Your task to perform on an android device: Empty the shopping cart on bestbuy. Image 0: 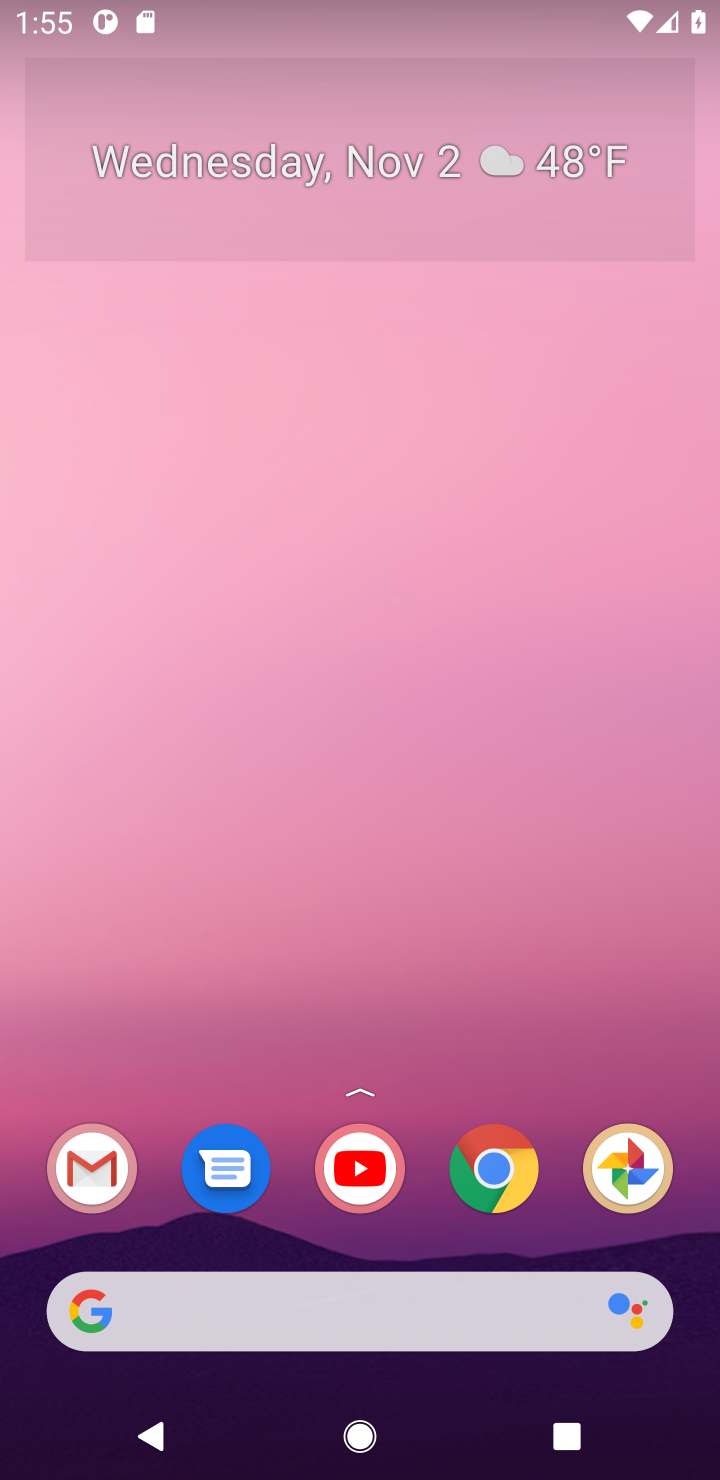
Step 0: click (354, 1319)
Your task to perform on an android device: Empty the shopping cart on bestbuy. Image 1: 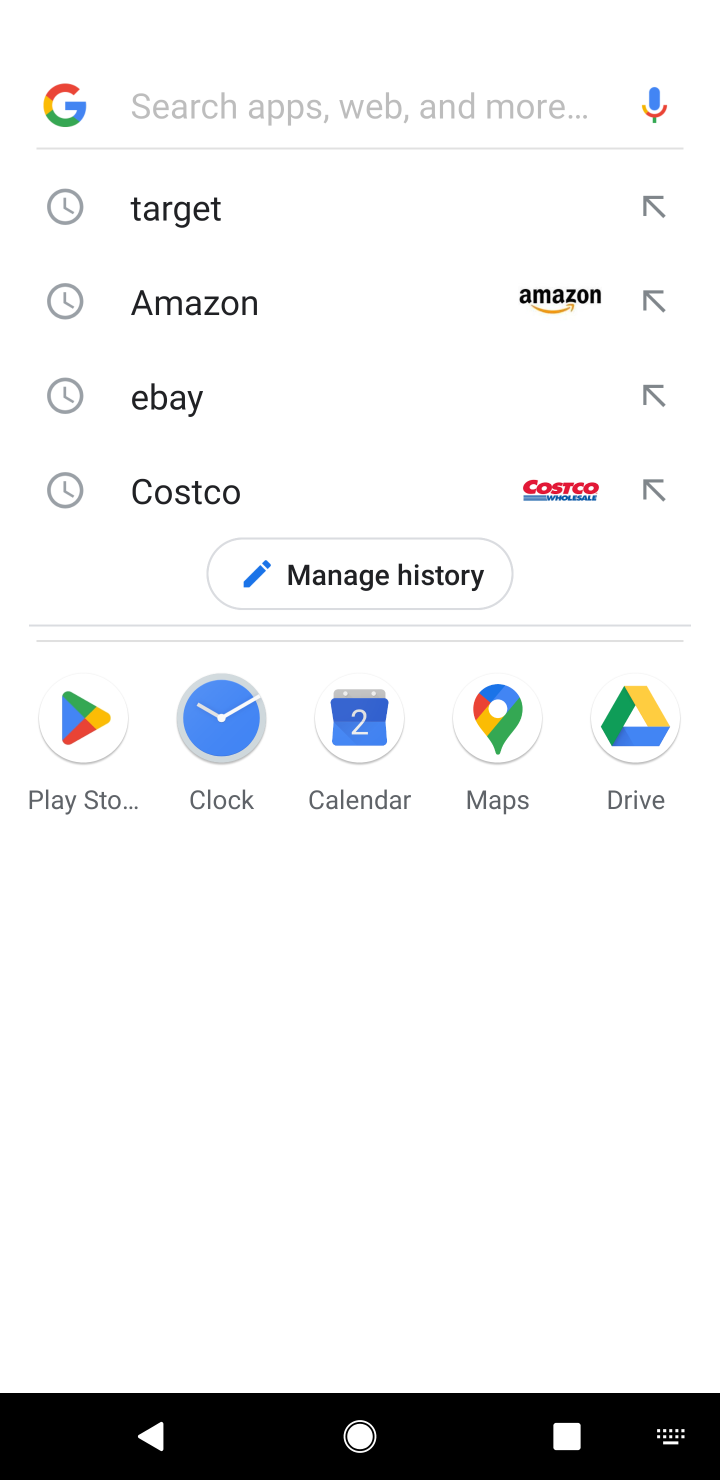
Step 1: type "bestbuy"
Your task to perform on an android device: Empty the shopping cart on bestbuy. Image 2: 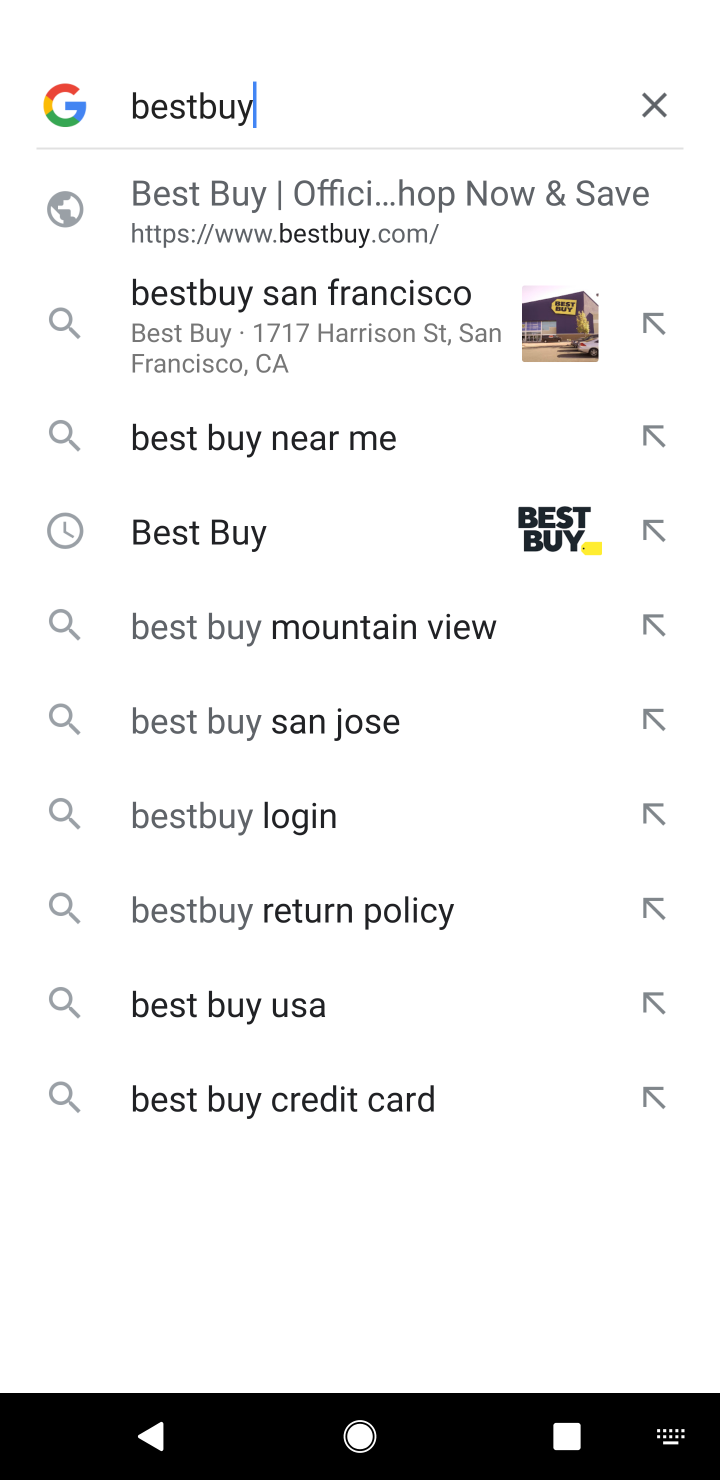
Step 2: click (359, 231)
Your task to perform on an android device: Empty the shopping cart on bestbuy. Image 3: 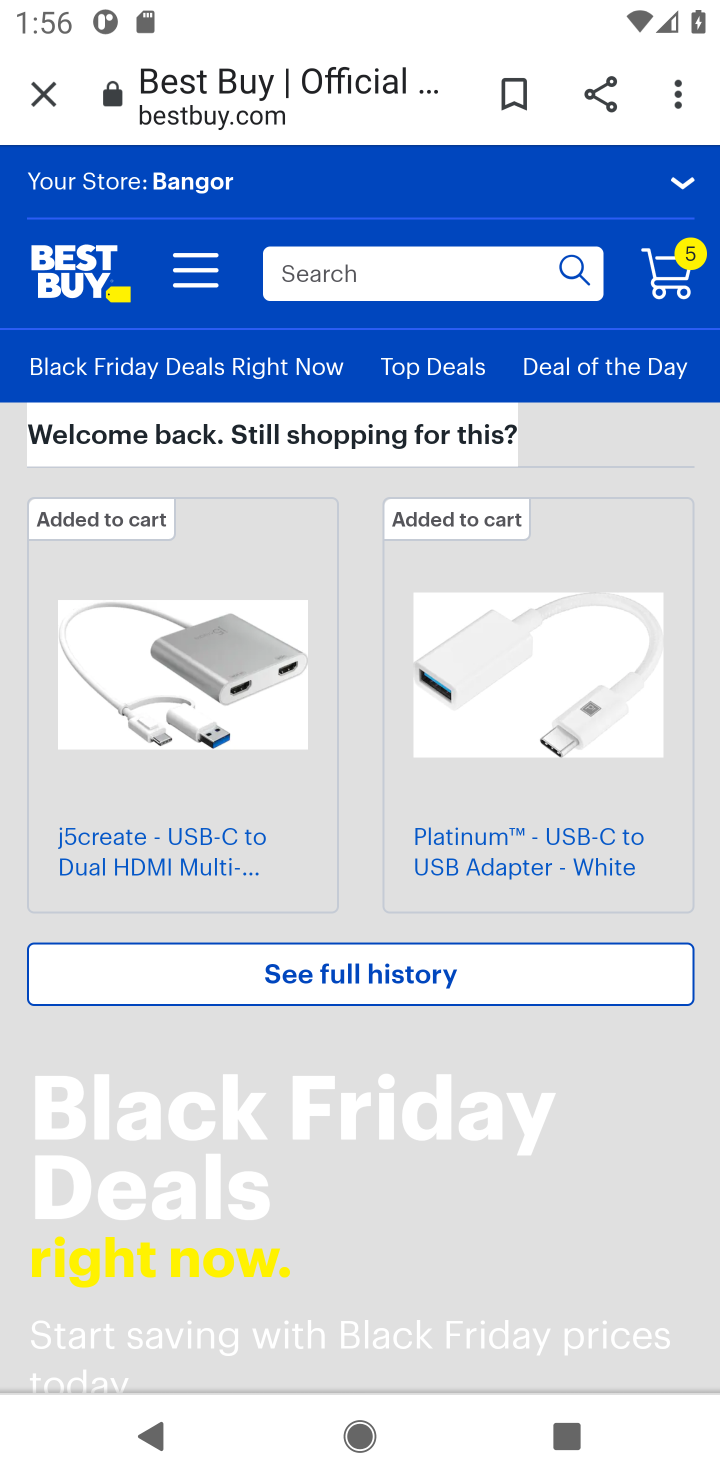
Step 3: click (399, 267)
Your task to perform on an android device: Empty the shopping cart on bestbuy. Image 4: 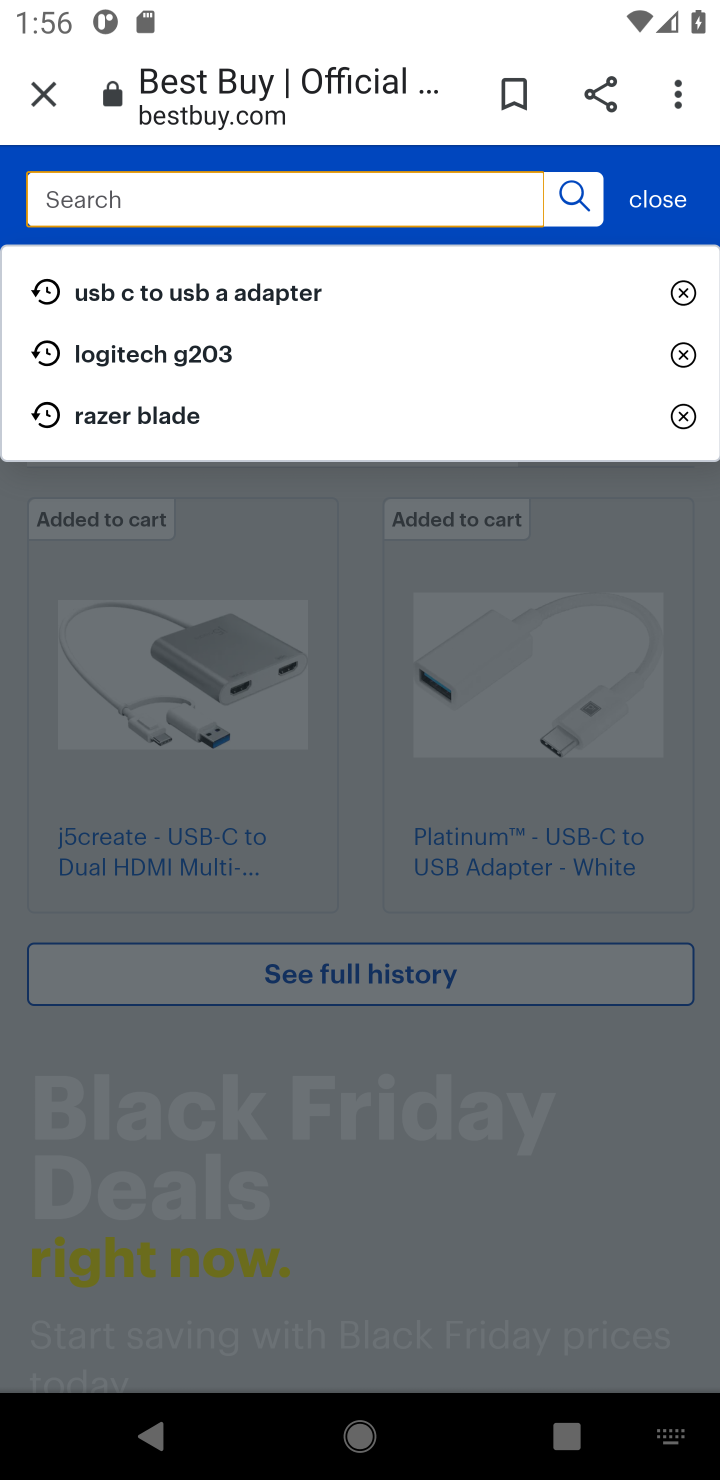
Step 4: click (667, 207)
Your task to perform on an android device: Empty the shopping cart on bestbuy. Image 5: 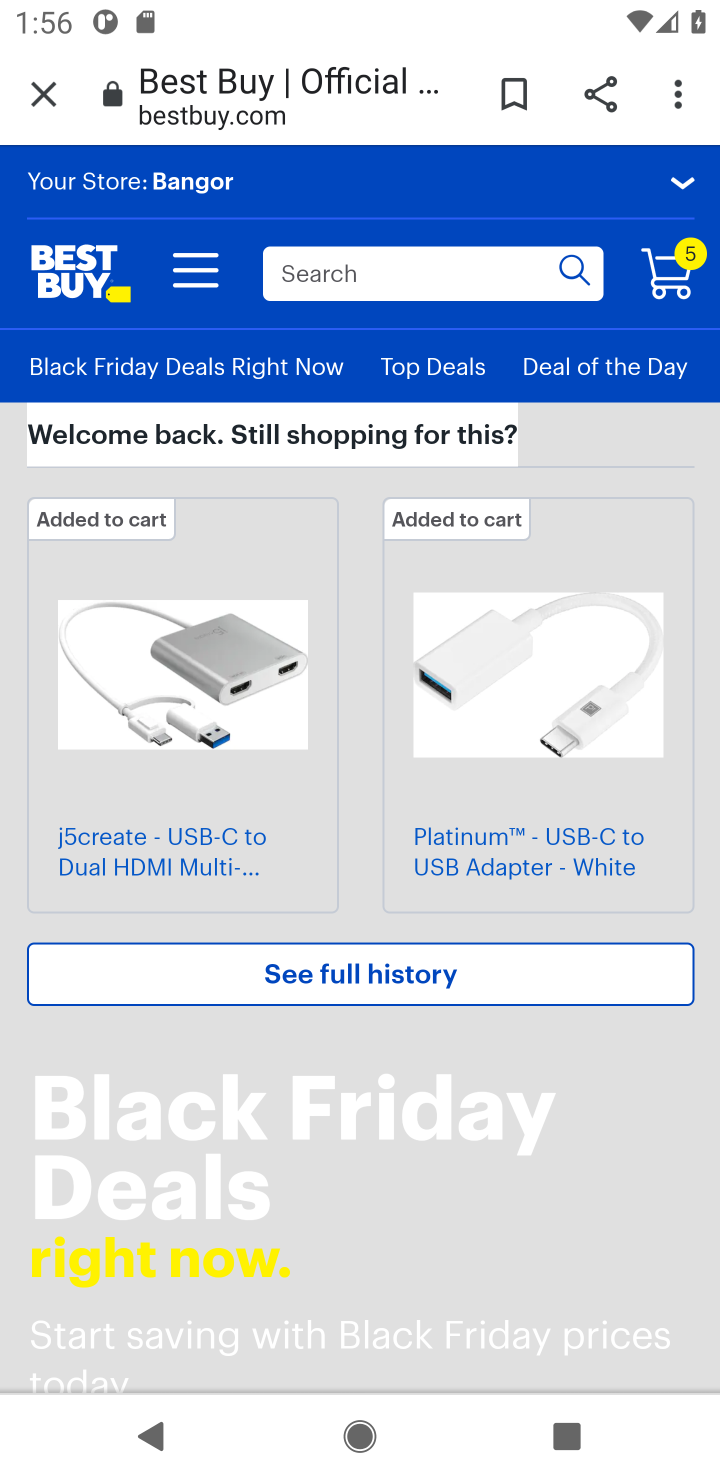
Step 5: click (670, 250)
Your task to perform on an android device: Empty the shopping cart on bestbuy. Image 6: 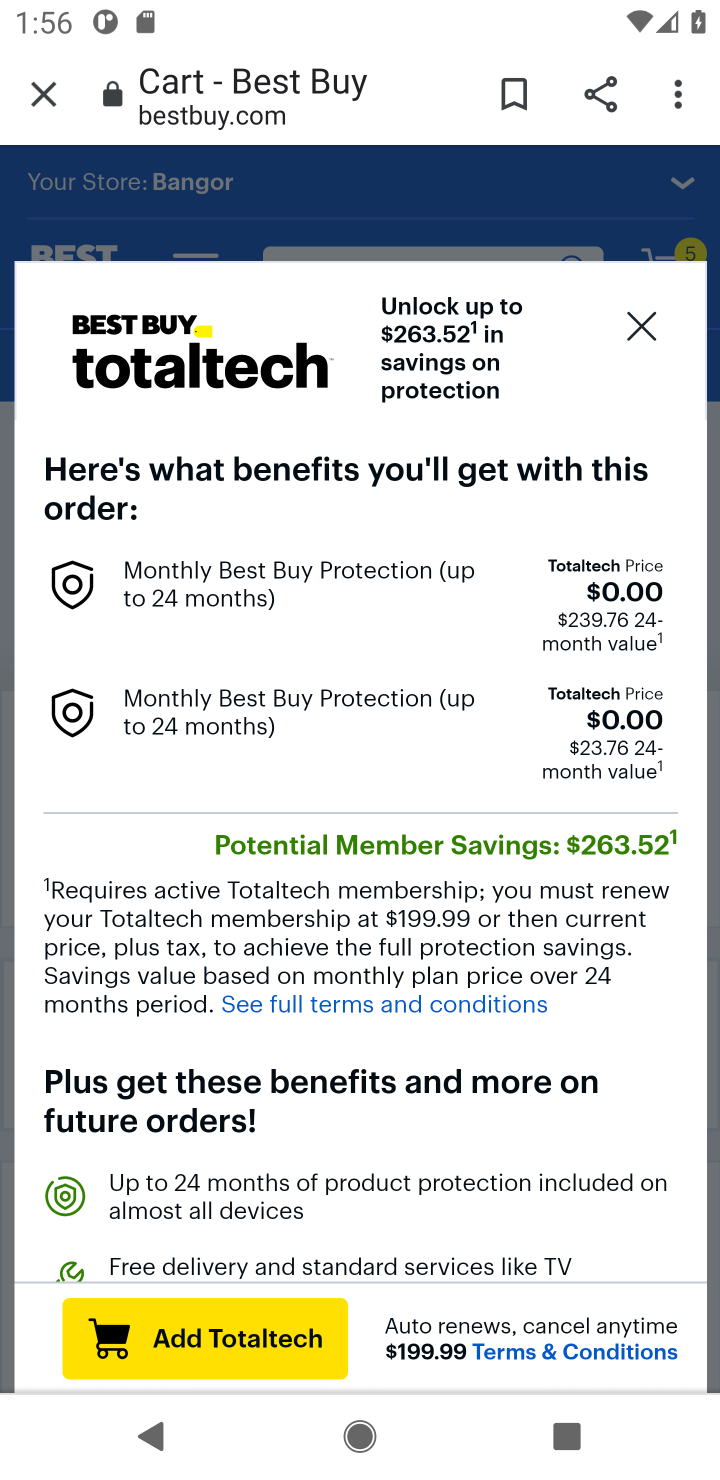
Step 6: click (648, 312)
Your task to perform on an android device: Empty the shopping cart on bestbuy. Image 7: 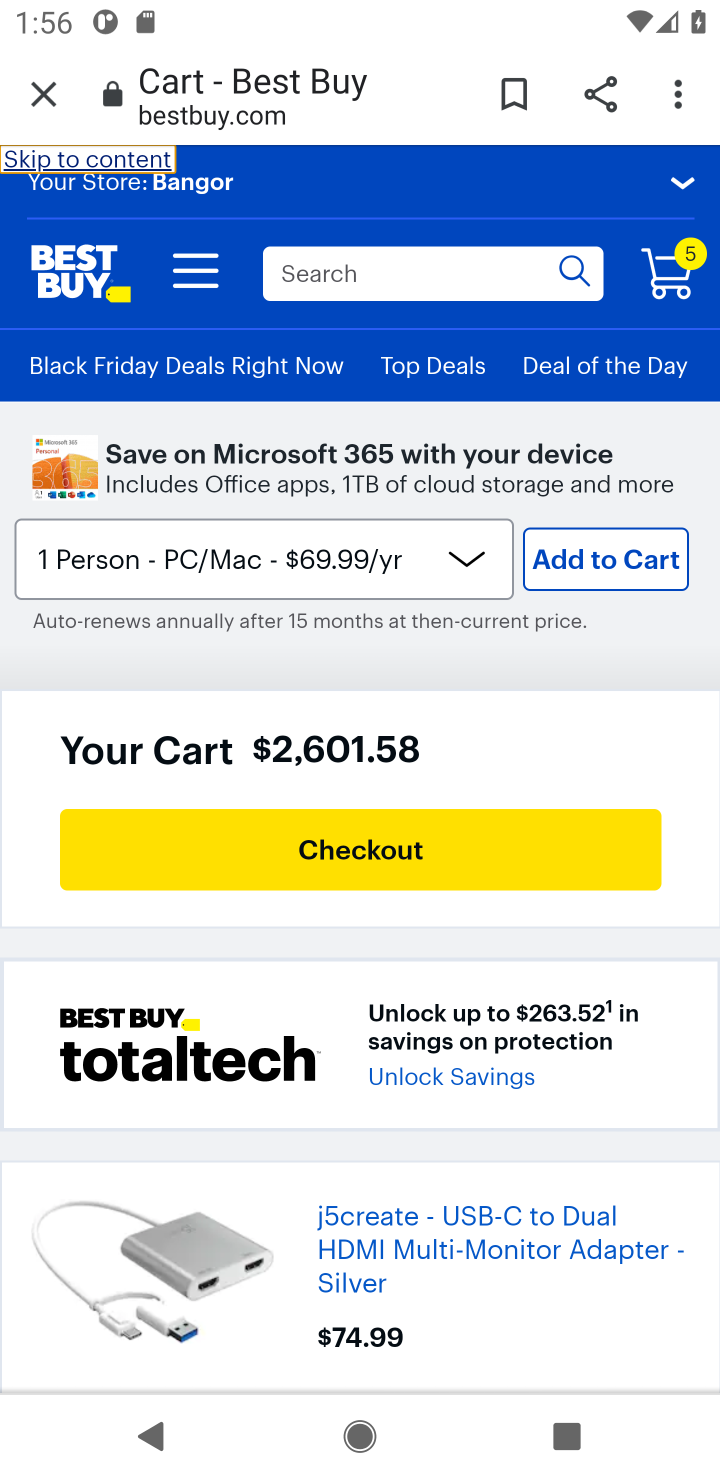
Step 7: click (504, 677)
Your task to perform on an android device: Empty the shopping cart on bestbuy. Image 8: 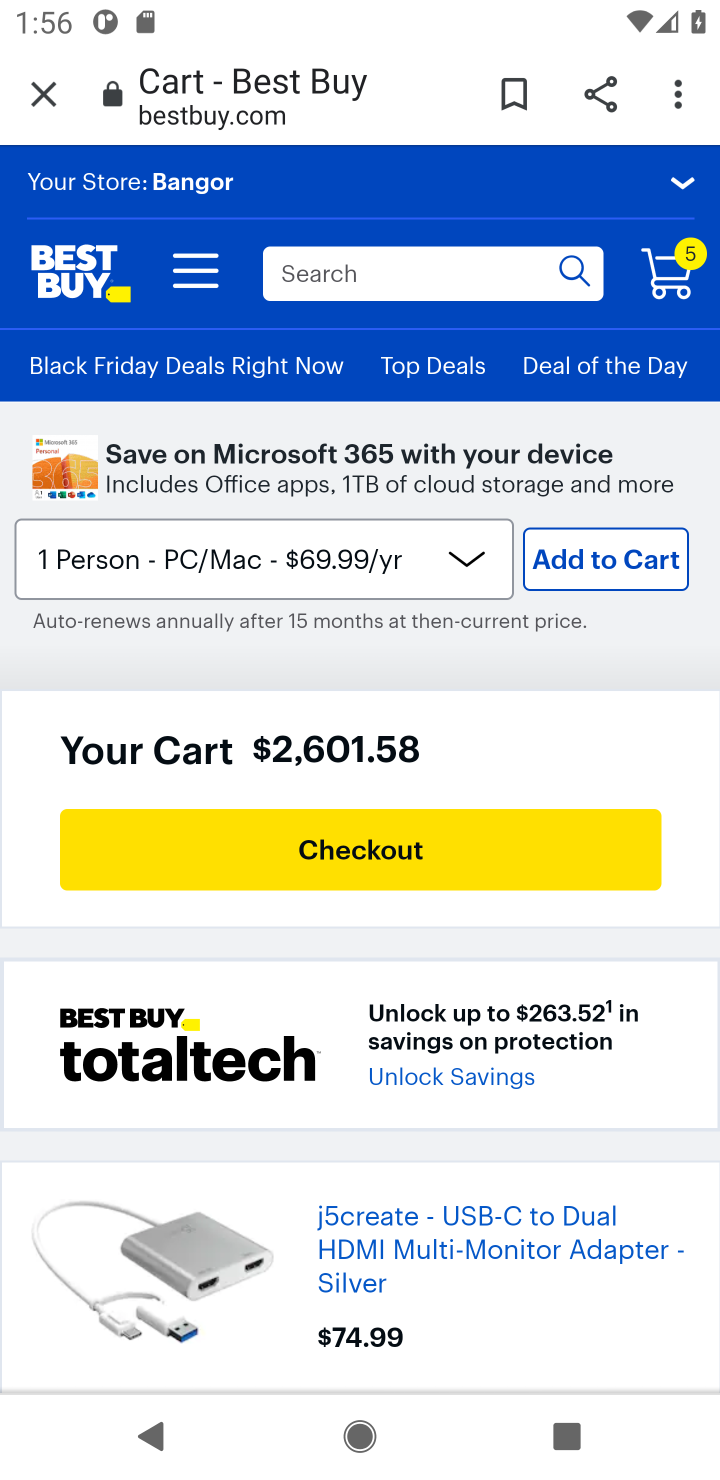
Step 8: drag from (459, 1138) to (419, 720)
Your task to perform on an android device: Empty the shopping cart on bestbuy. Image 9: 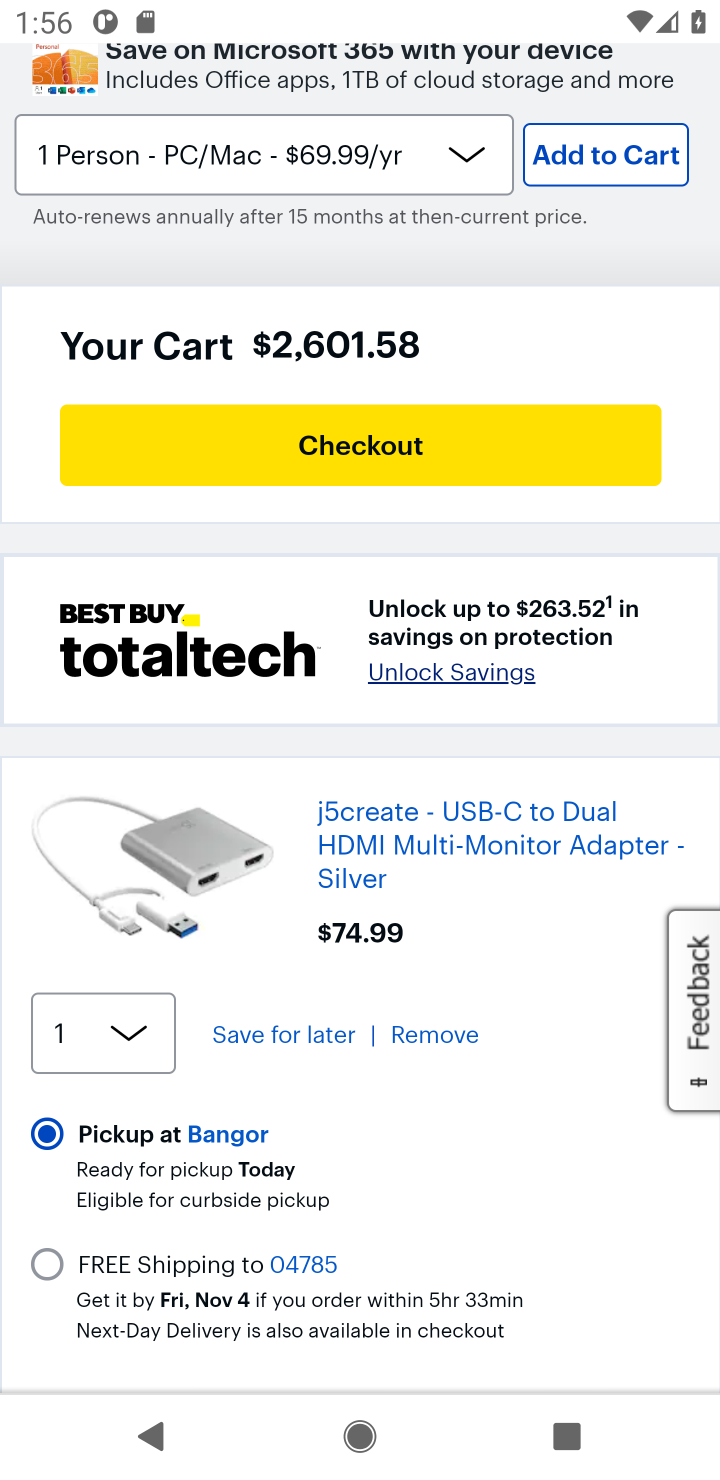
Step 9: click (431, 1036)
Your task to perform on an android device: Empty the shopping cart on bestbuy. Image 10: 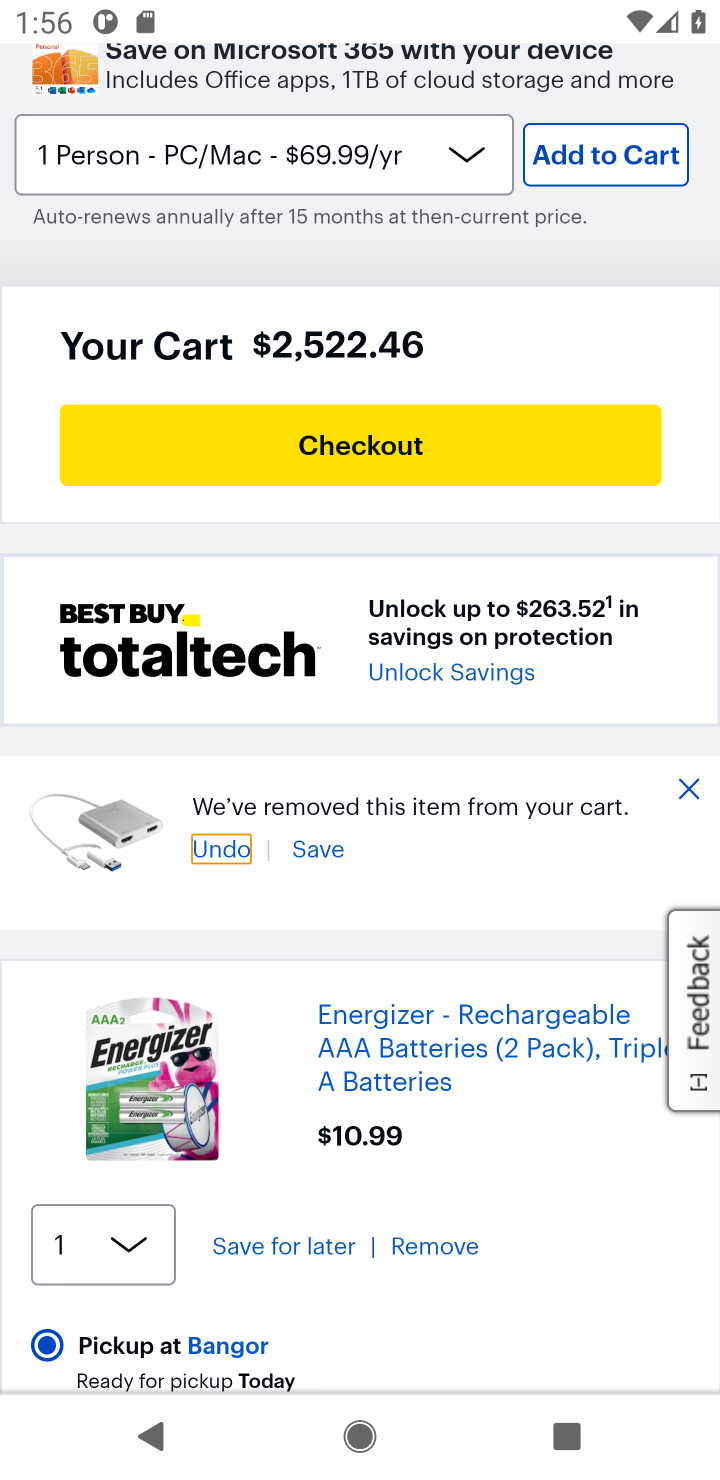
Step 10: click (435, 1243)
Your task to perform on an android device: Empty the shopping cart on bestbuy. Image 11: 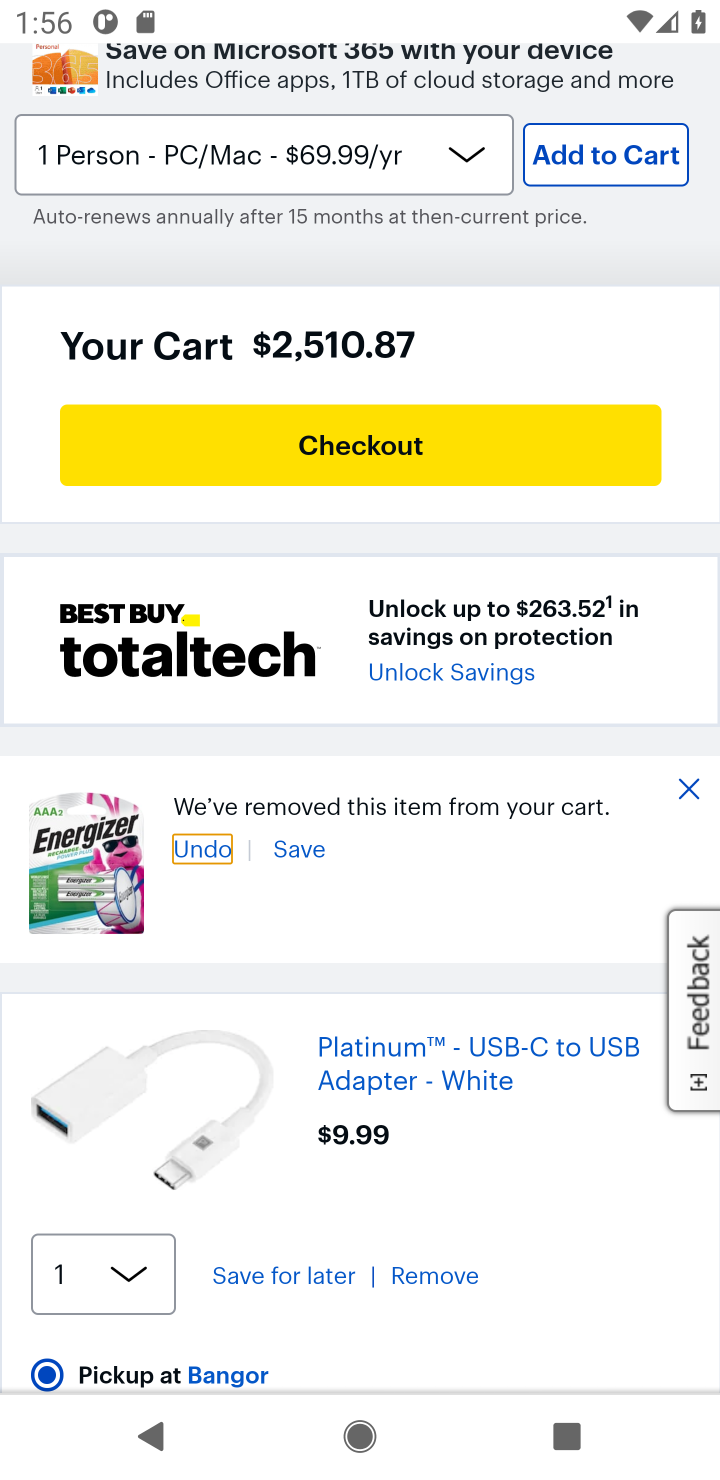
Step 11: click (431, 1272)
Your task to perform on an android device: Empty the shopping cart on bestbuy. Image 12: 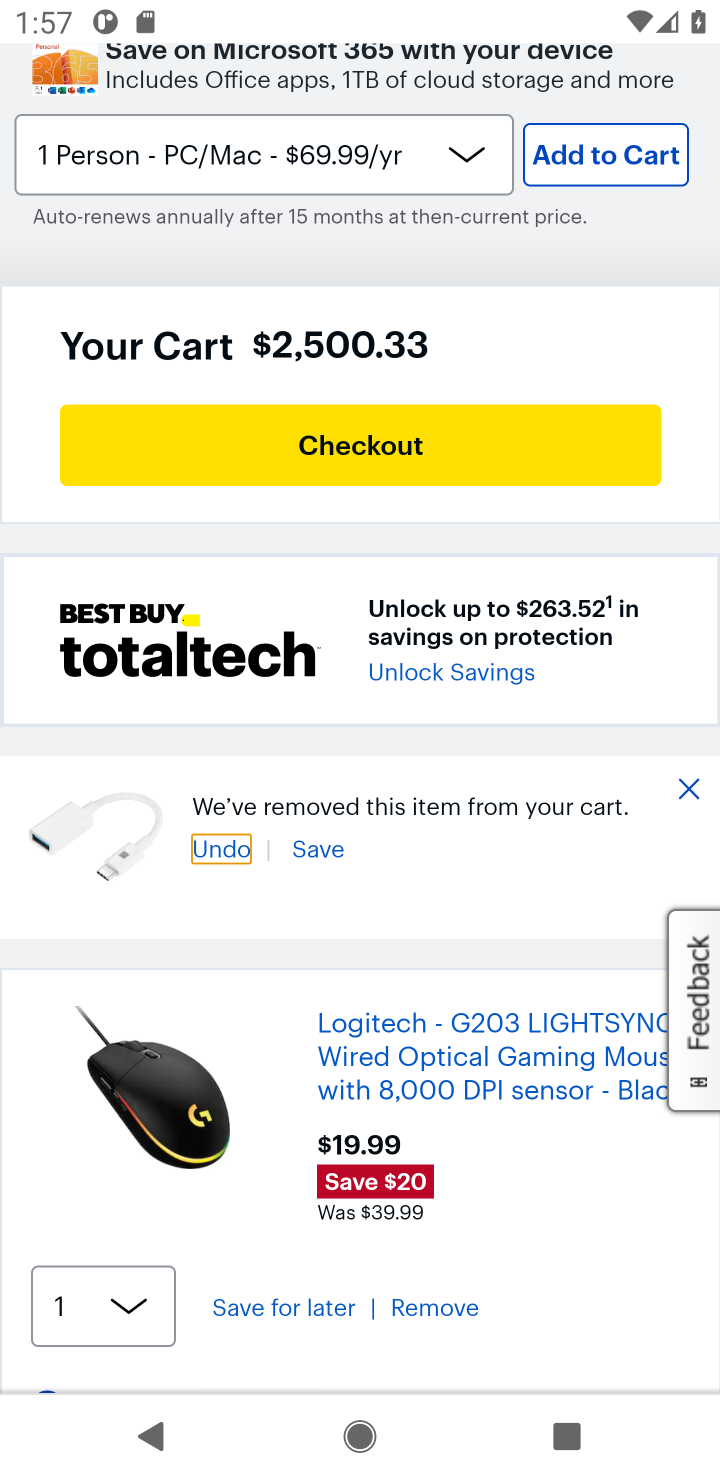
Step 12: click (431, 1299)
Your task to perform on an android device: Empty the shopping cart on bestbuy. Image 13: 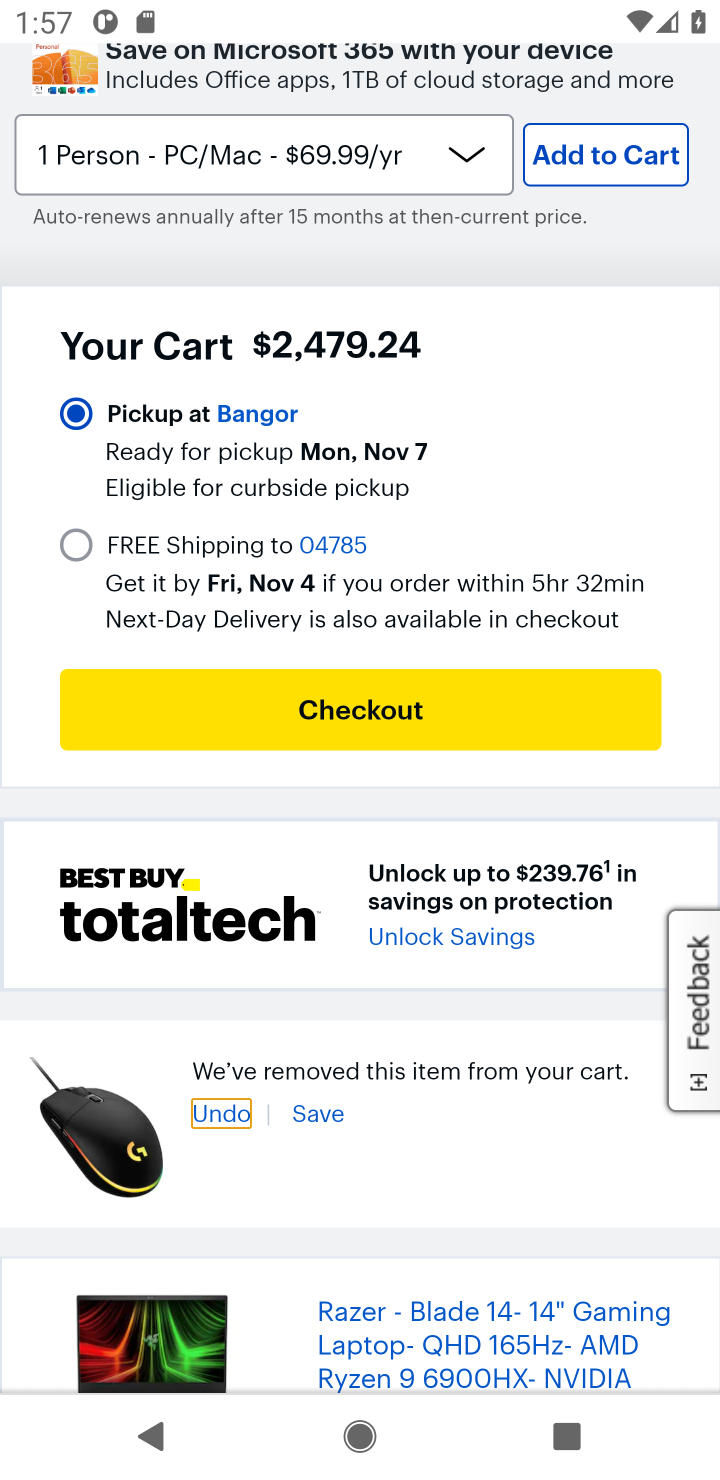
Step 13: drag from (476, 1186) to (476, 755)
Your task to perform on an android device: Empty the shopping cart on bestbuy. Image 14: 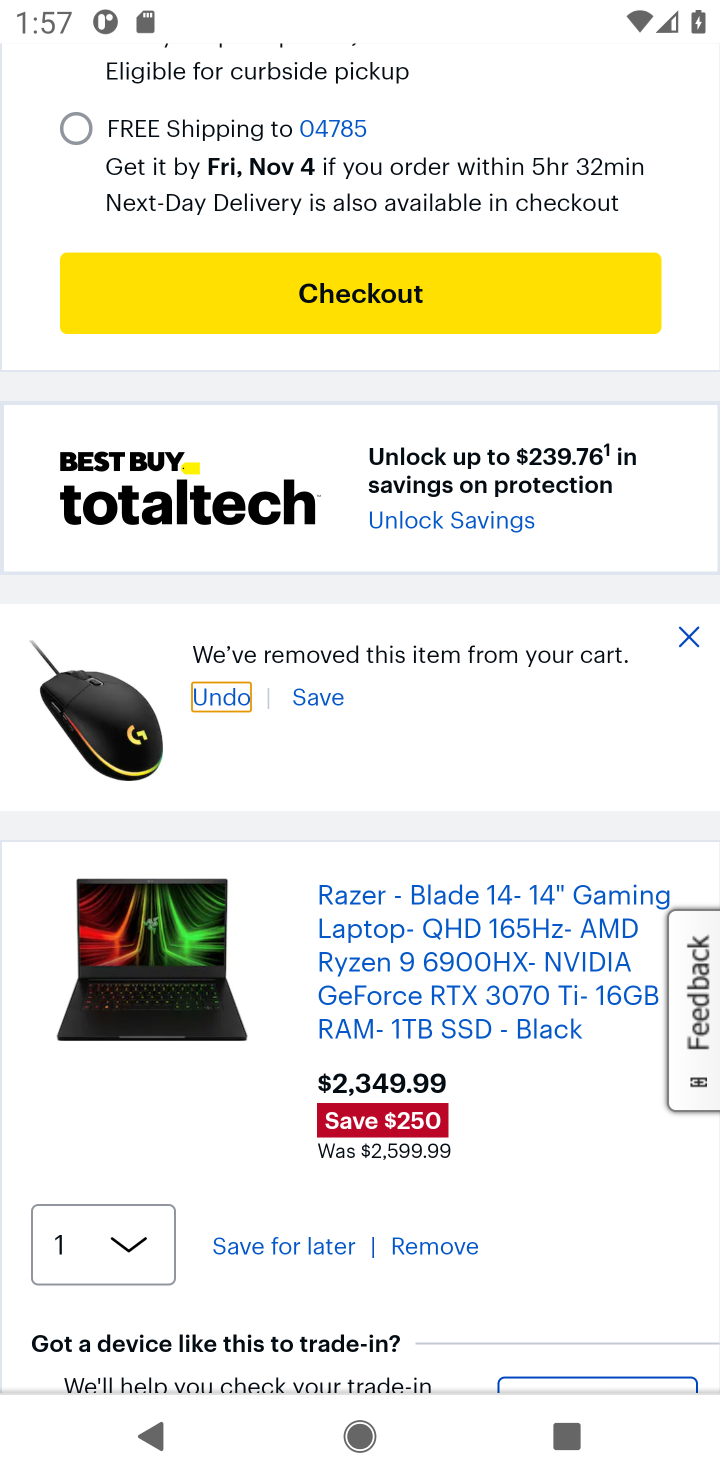
Step 14: click (422, 1249)
Your task to perform on an android device: Empty the shopping cart on bestbuy. Image 15: 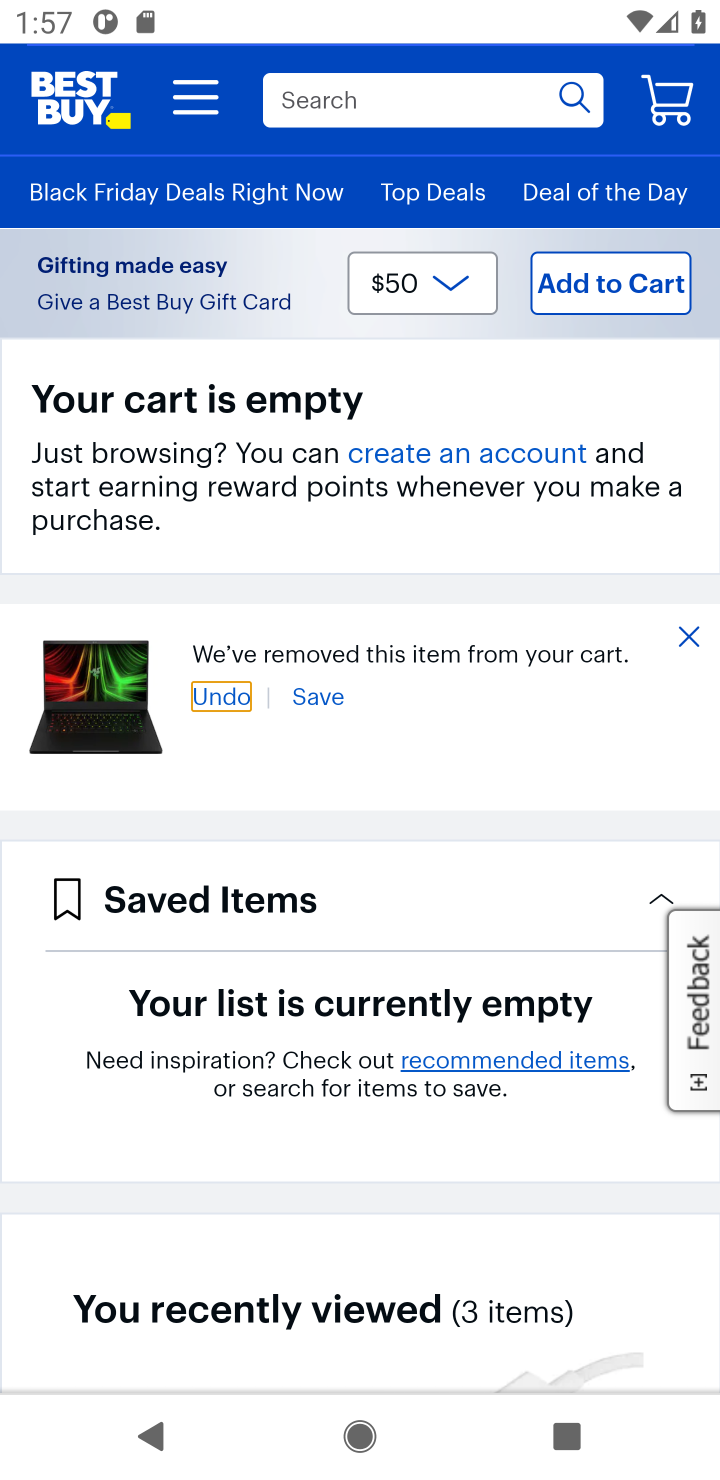
Step 15: click (681, 644)
Your task to perform on an android device: Empty the shopping cart on bestbuy. Image 16: 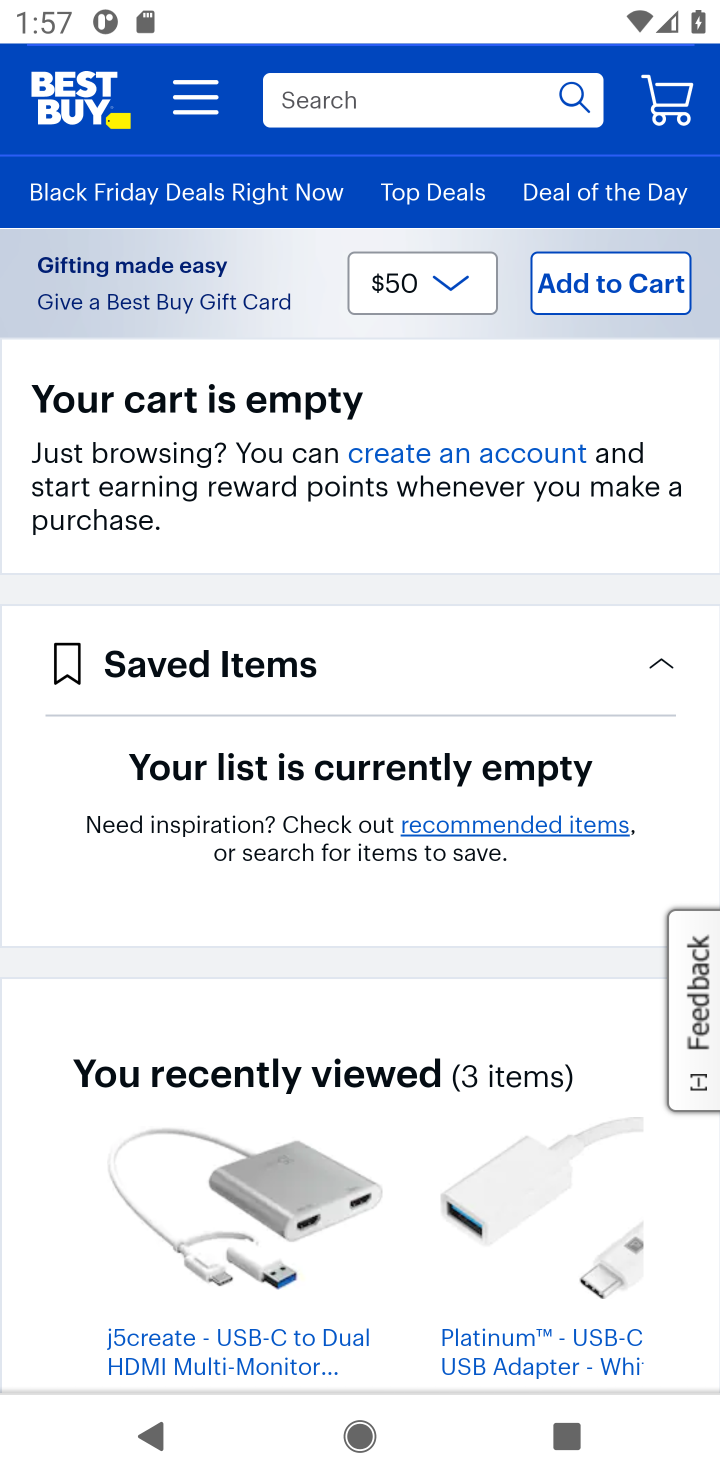
Step 16: task complete